Your task to perform on an android device: Open Google Maps and go to "Timeline" Image 0: 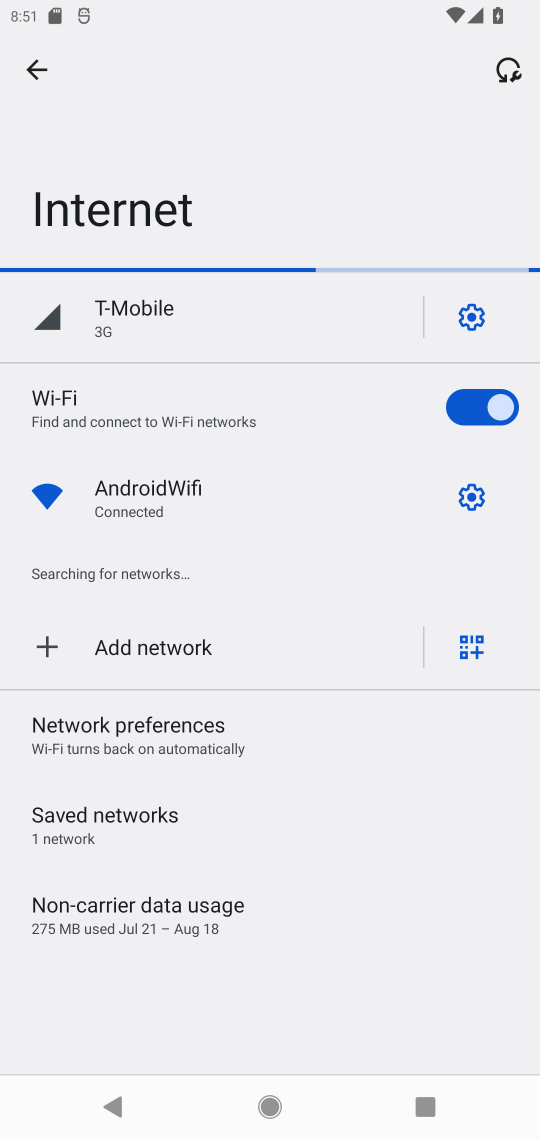
Step 0: press home button
Your task to perform on an android device: Open Google Maps and go to "Timeline" Image 1: 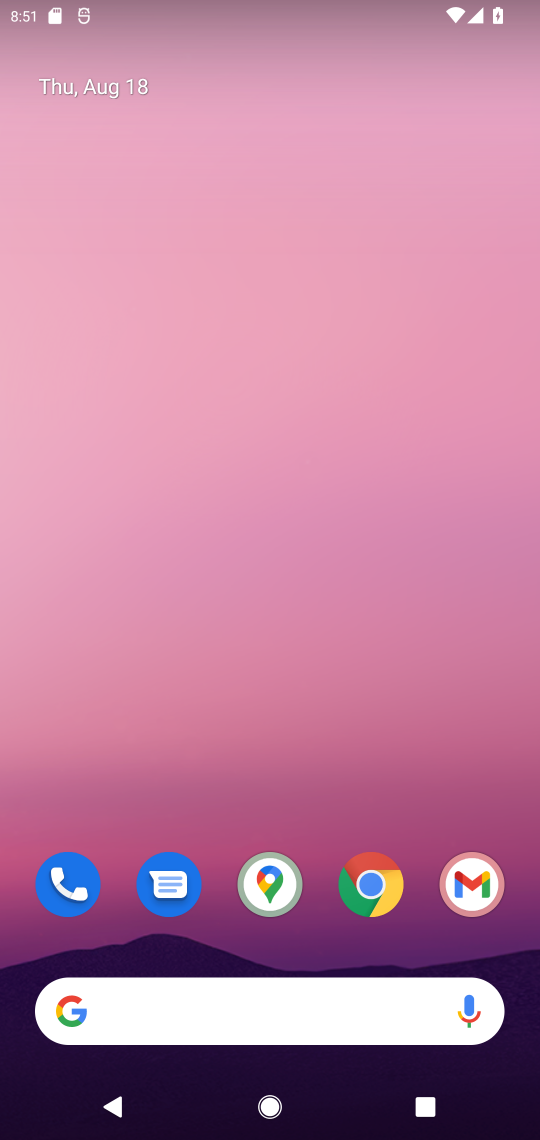
Step 1: click (277, 874)
Your task to perform on an android device: Open Google Maps and go to "Timeline" Image 2: 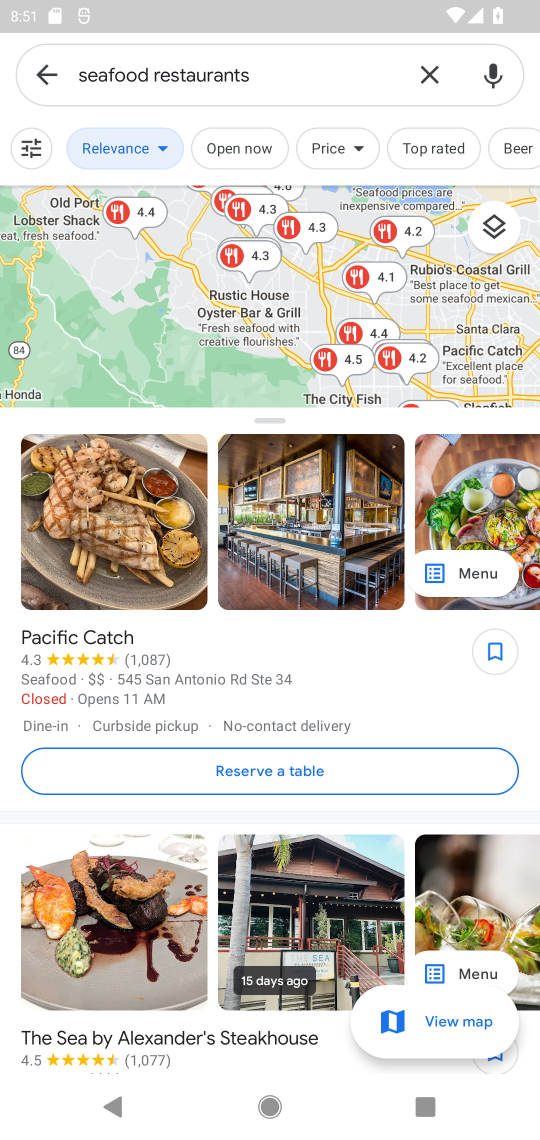
Step 2: click (59, 101)
Your task to perform on an android device: Open Google Maps and go to "Timeline" Image 3: 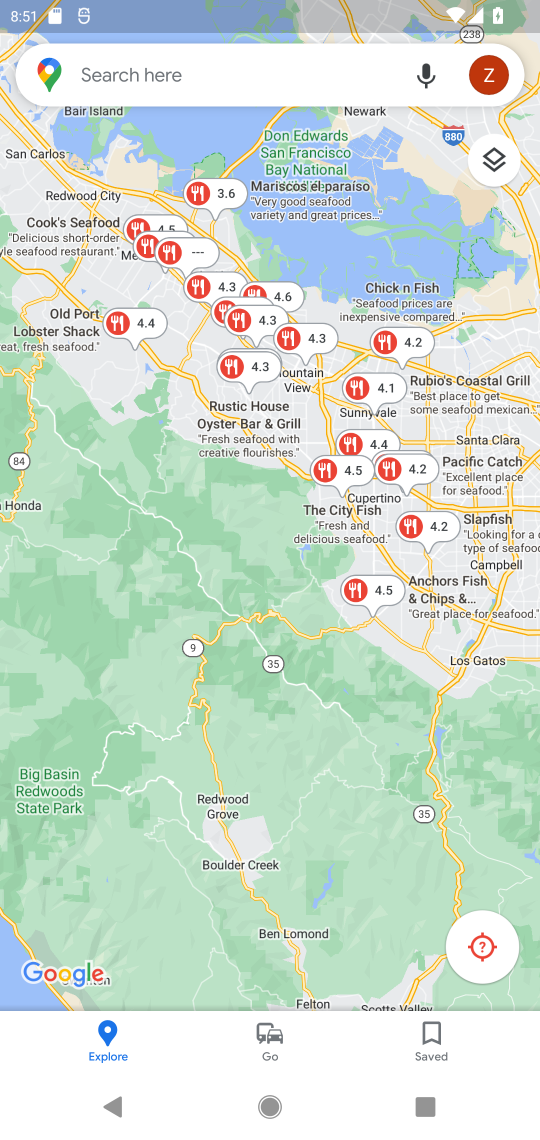
Step 3: click (55, 84)
Your task to perform on an android device: Open Google Maps and go to "Timeline" Image 4: 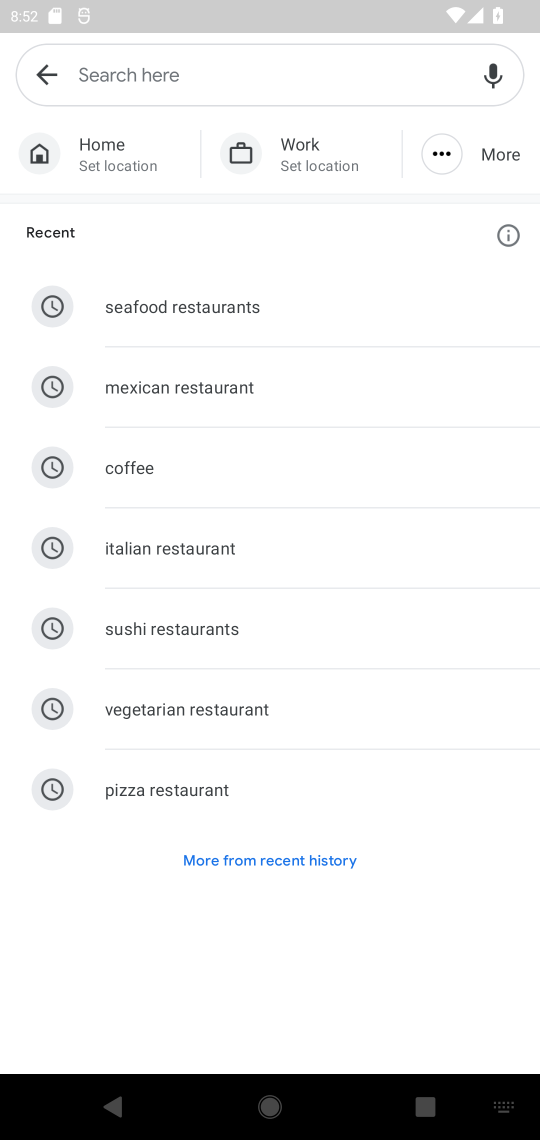
Step 4: click (57, 75)
Your task to perform on an android device: Open Google Maps and go to "Timeline" Image 5: 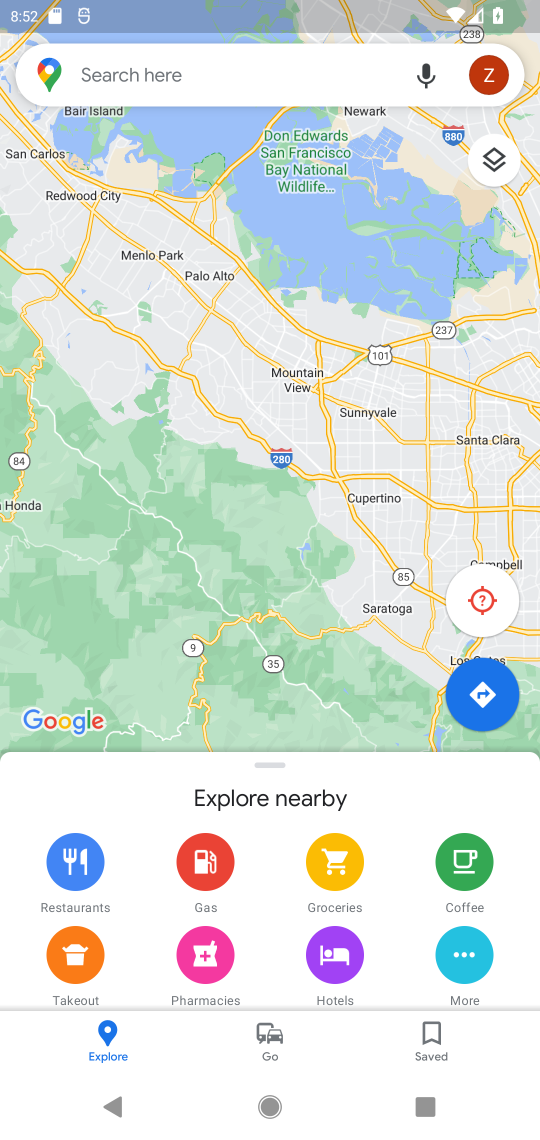
Step 5: click (496, 77)
Your task to perform on an android device: Open Google Maps and go to "Timeline" Image 6: 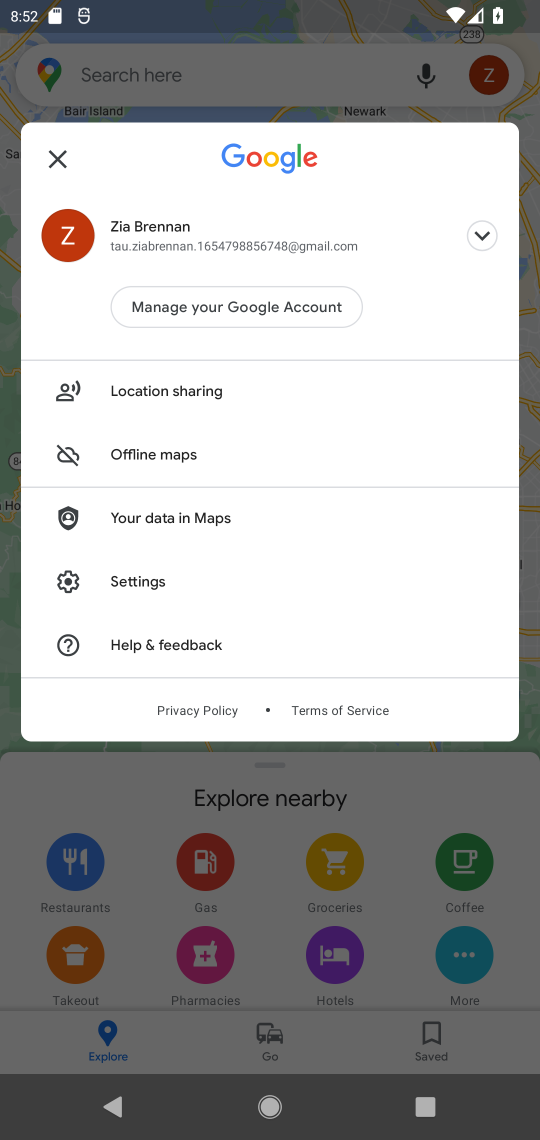
Step 6: click (213, 606)
Your task to perform on an android device: Open Google Maps and go to "Timeline" Image 7: 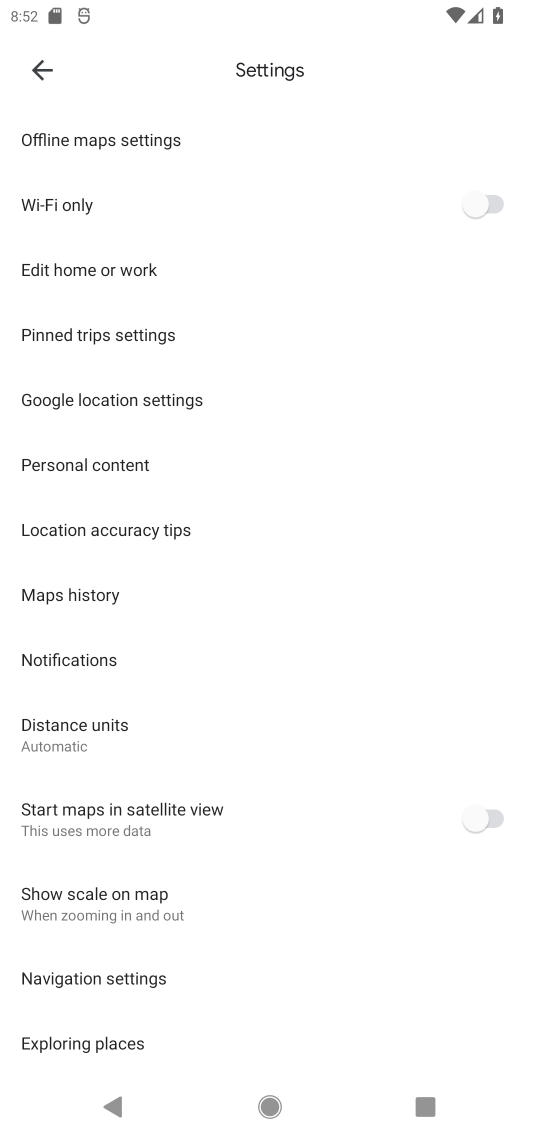
Step 7: task complete